Your task to perform on an android device: turn off location Image 0: 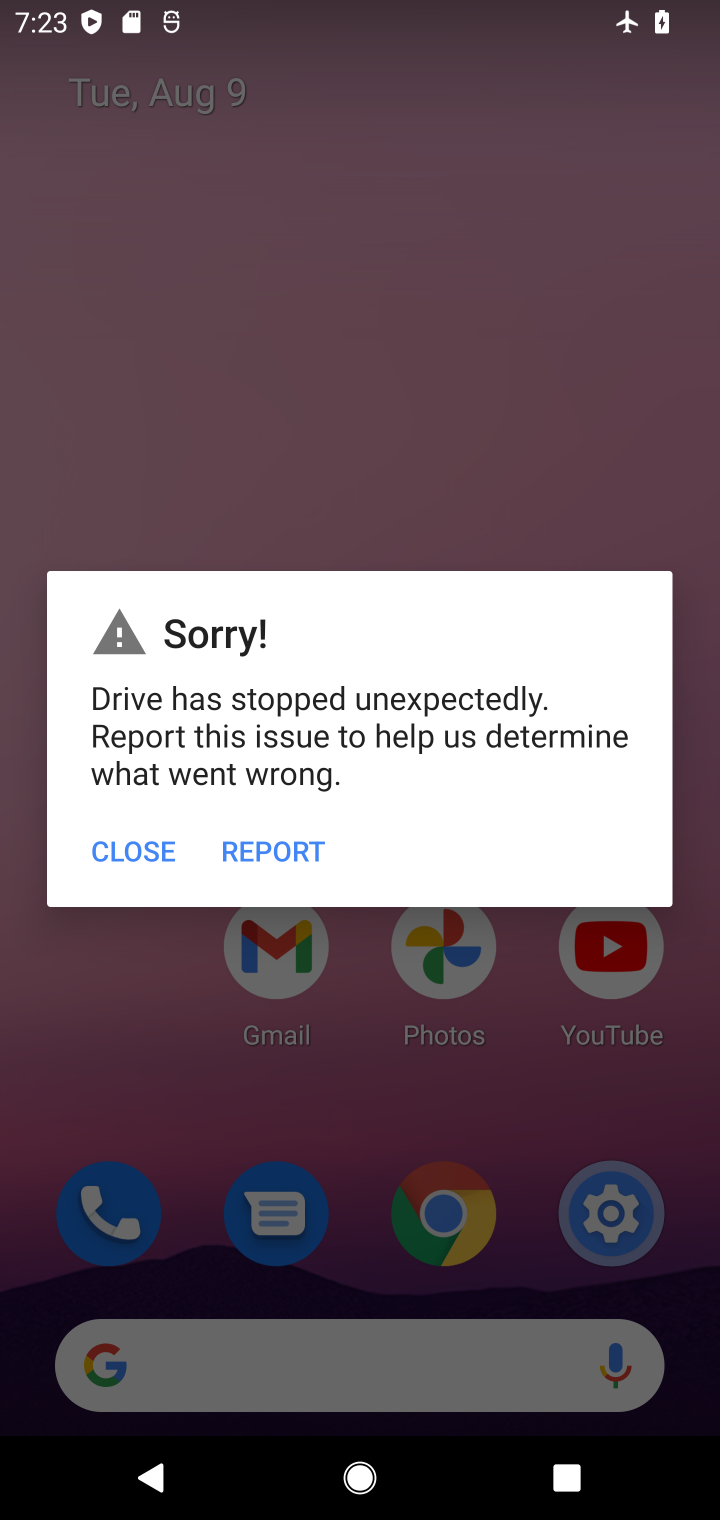
Step 0: click (166, 858)
Your task to perform on an android device: turn off location Image 1: 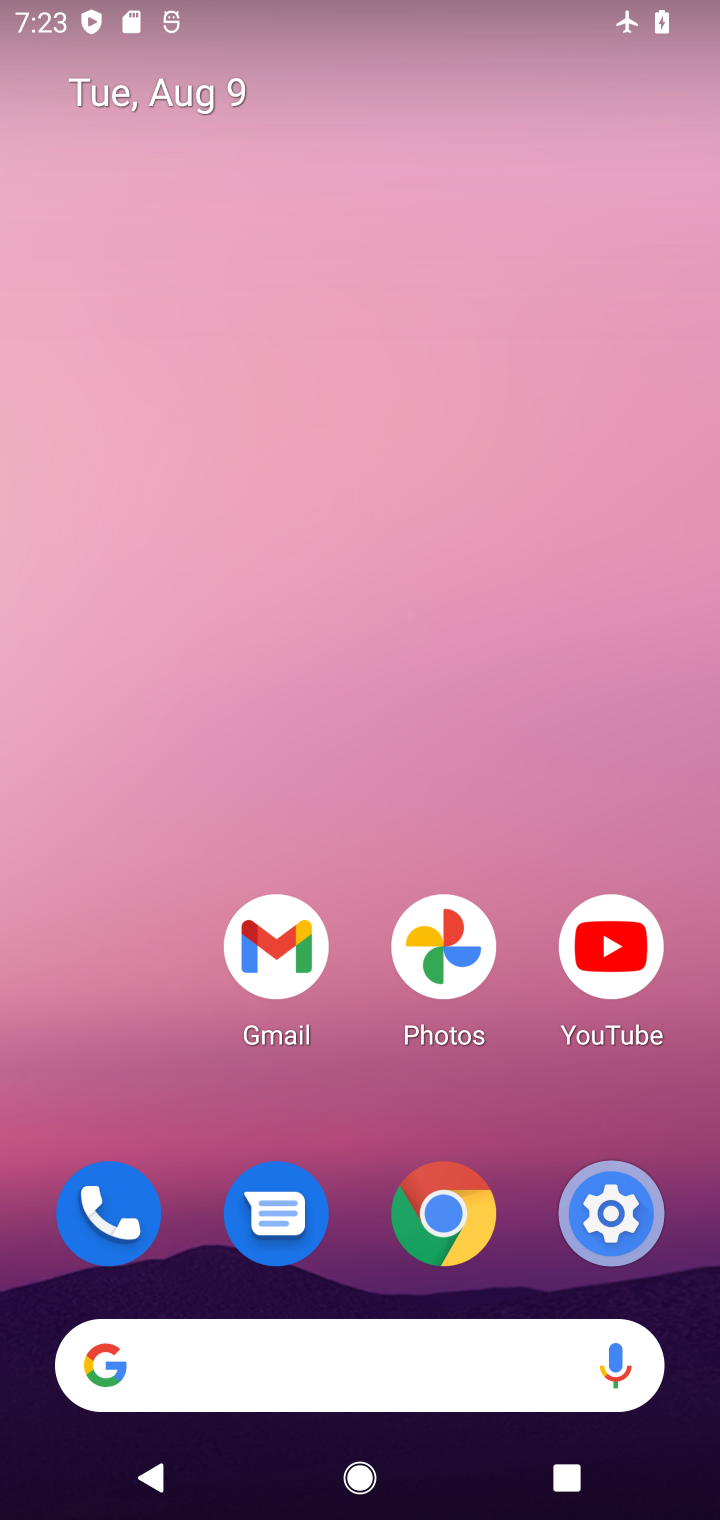
Step 1: click (603, 1164)
Your task to perform on an android device: turn off location Image 2: 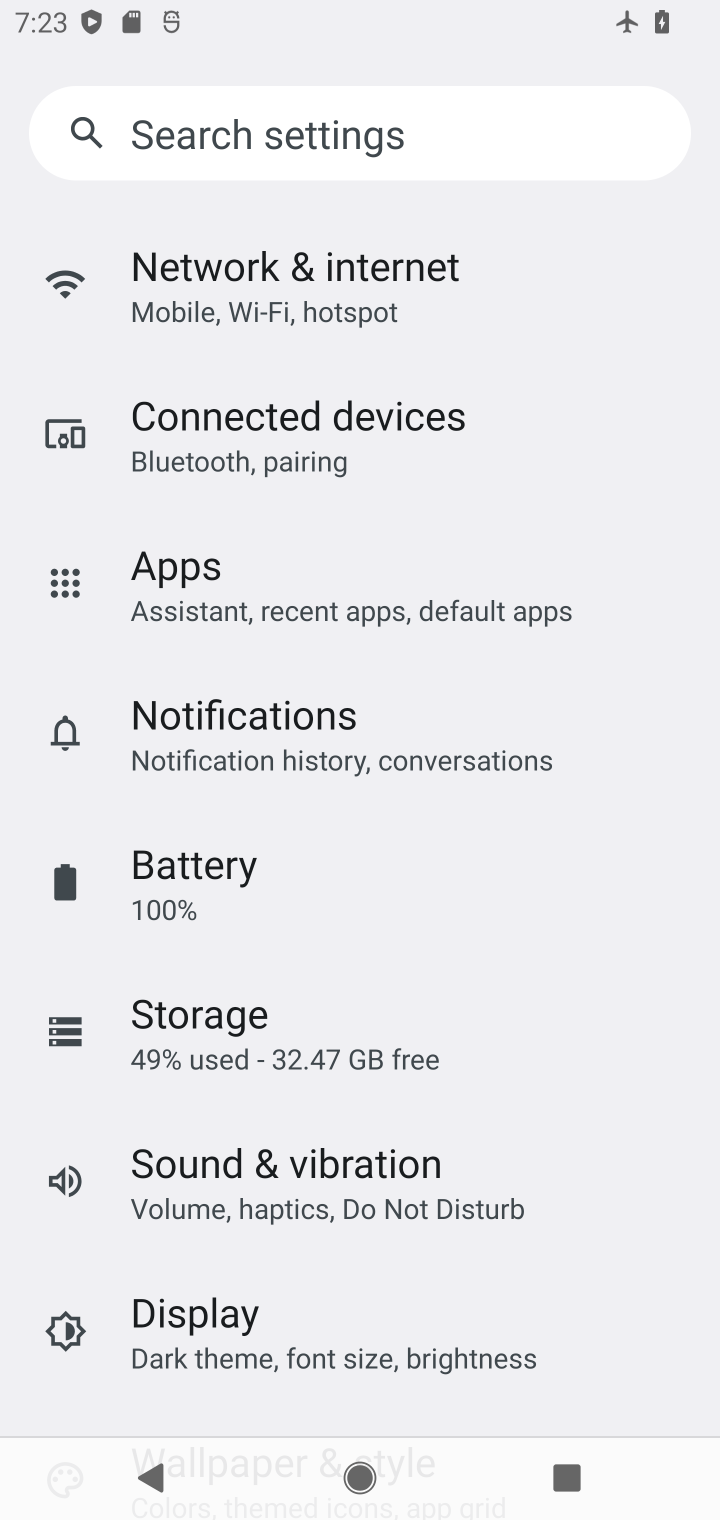
Step 2: drag from (456, 1144) to (281, 258)
Your task to perform on an android device: turn off location Image 3: 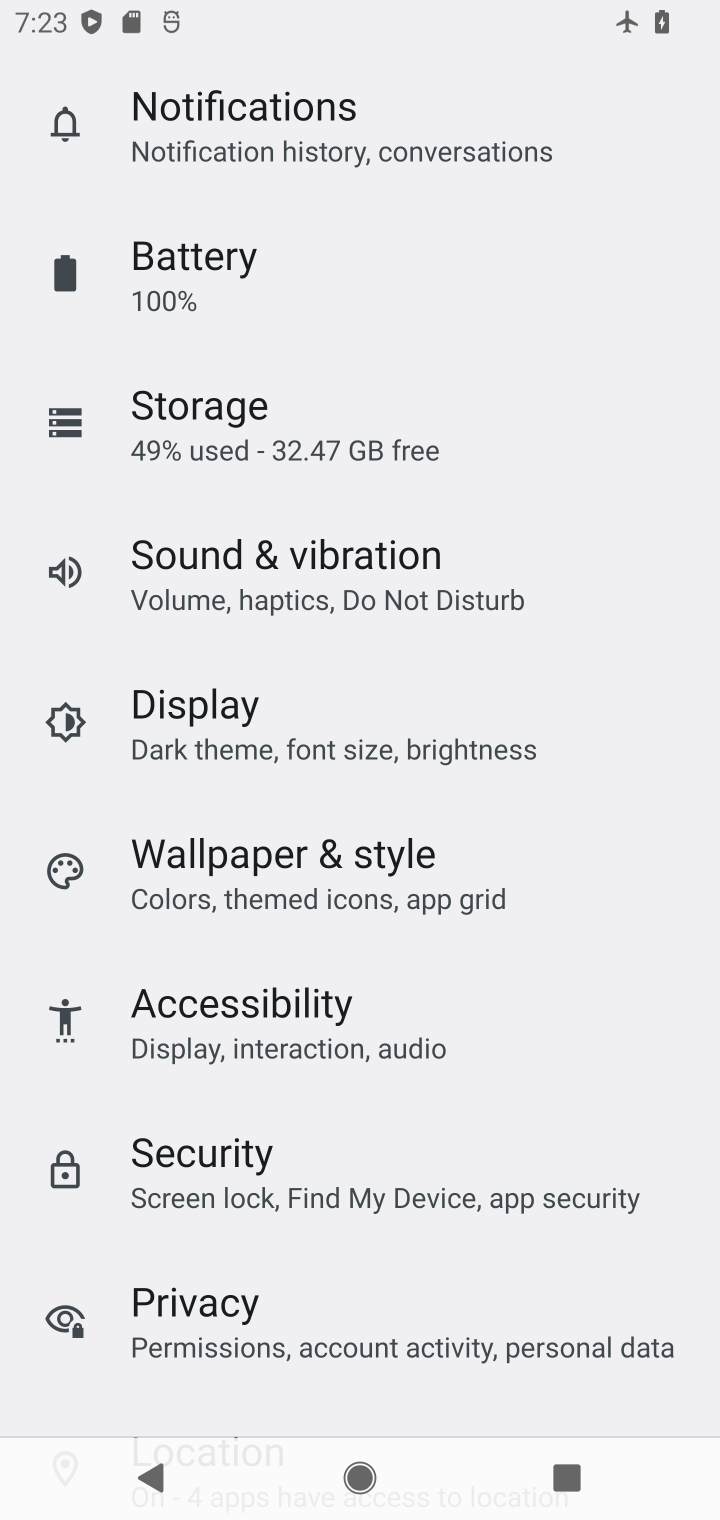
Step 3: drag from (327, 1214) to (192, 737)
Your task to perform on an android device: turn off location Image 4: 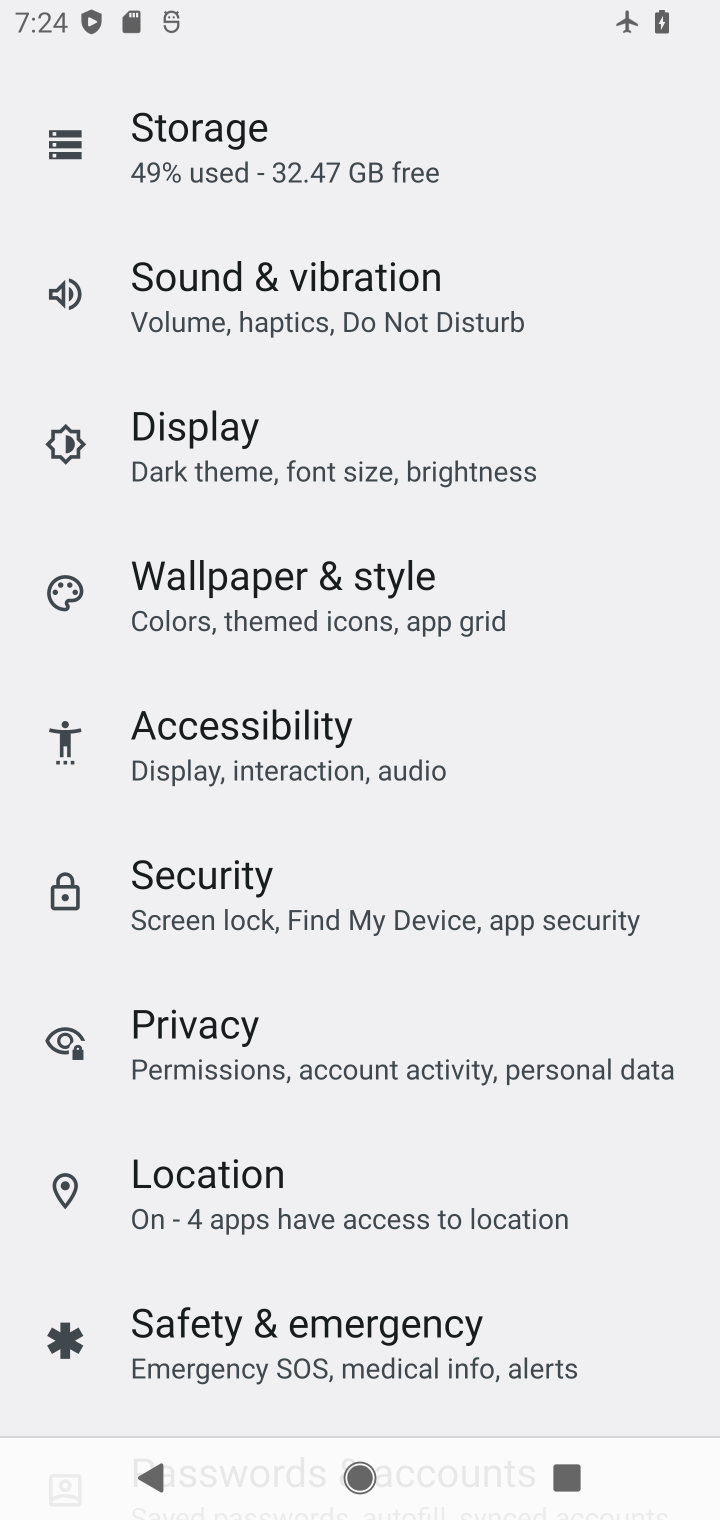
Step 4: click (275, 1174)
Your task to perform on an android device: turn off location Image 5: 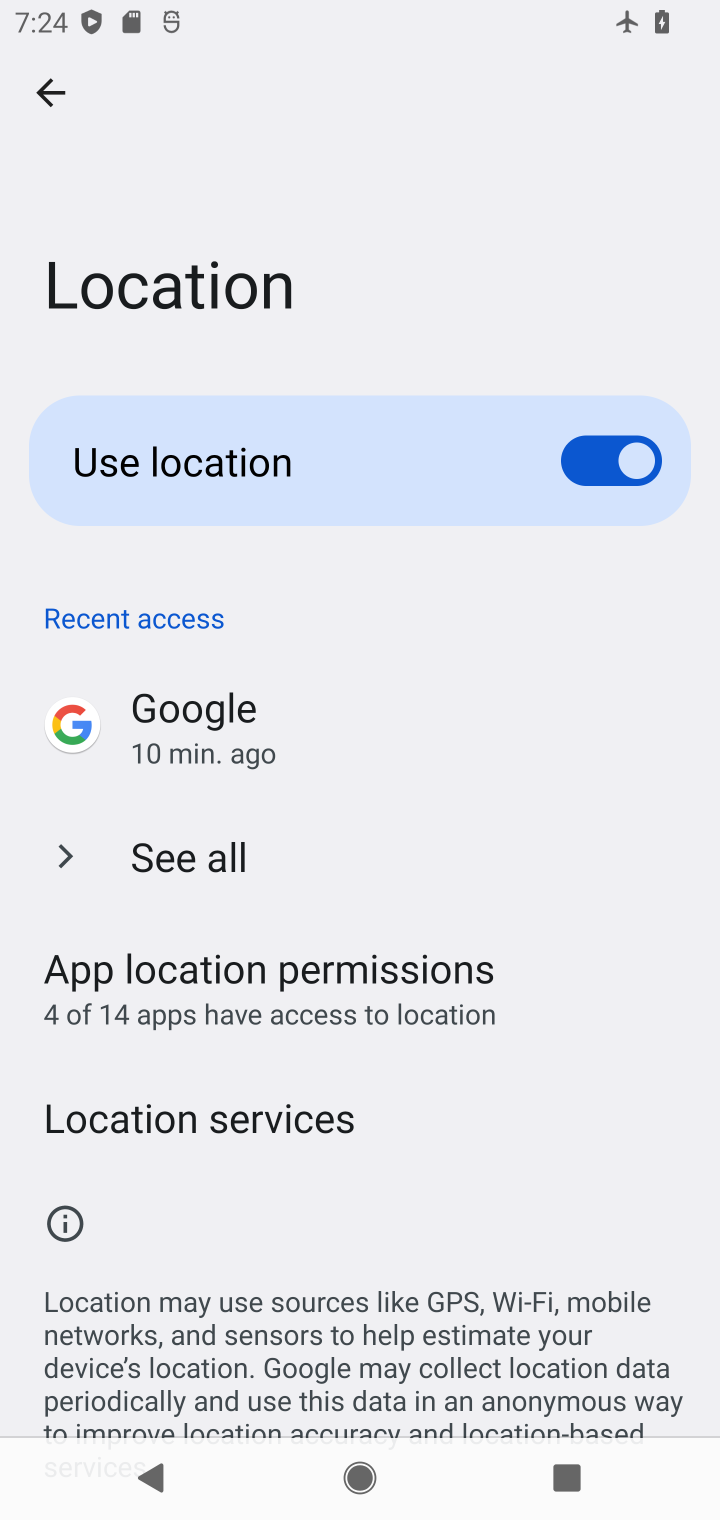
Step 5: click (600, 472)
Your task to perform on an android device: turn off location Image 6: 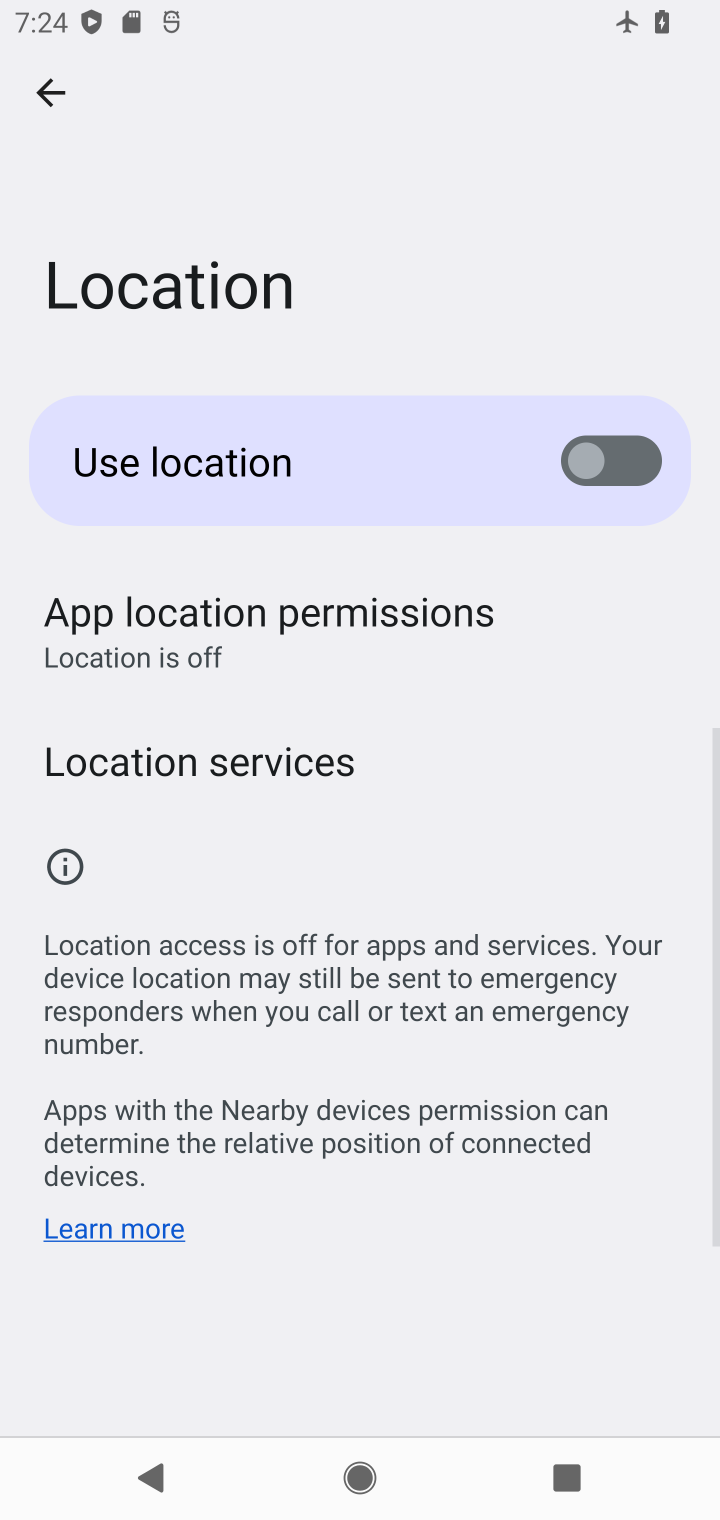
Step 6: task complete